Your task to perform on an android device: Open notification settings Image 0: 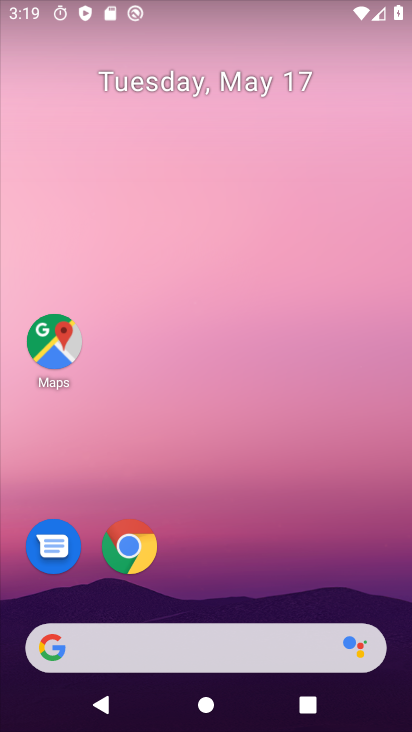
Step 0: drag from (226, 626) to (269, 213)
Your task to perform on an android device: Open notification settings Image 1: 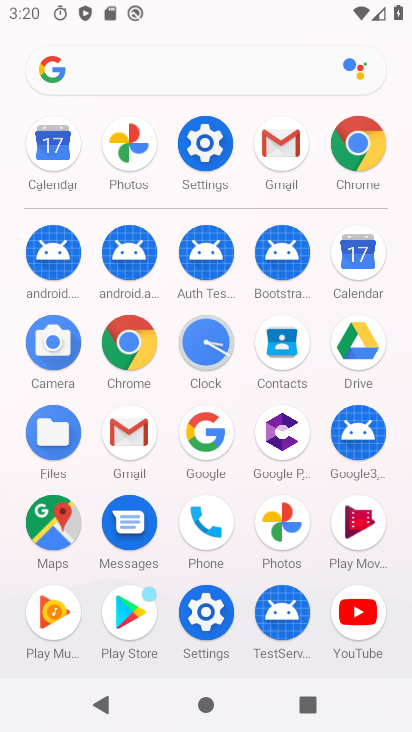
Step 1: click (199, 149)
Your task to perform on an android device: Open notification settings Image 2: 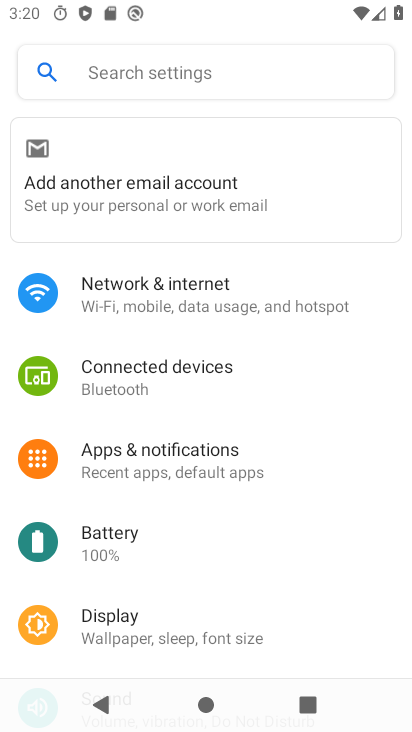
Step 2: click (218, 464)
Your task to perform on an android device: Open notification settings Image 3: 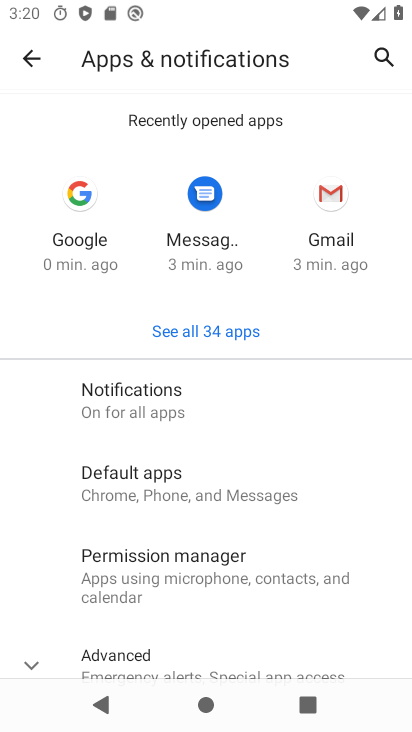
Step 3: click (224, 411)
Your task to perform on an android device: Open notification settings Image 4: 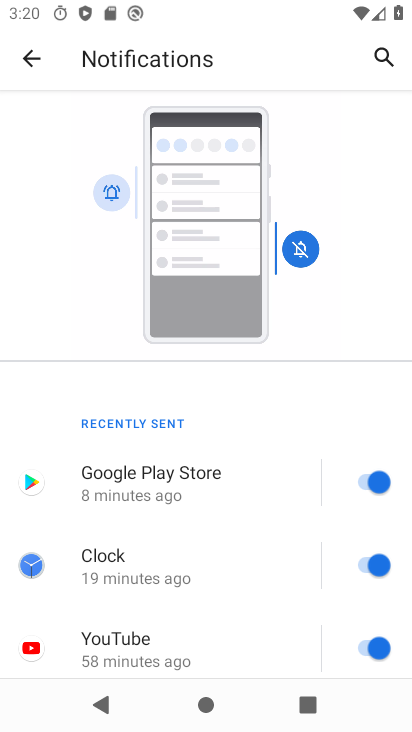
Step 4: drag from (197, 593) to (232, 227)
Your task to perform on an android device: Open notification settings Image 5: 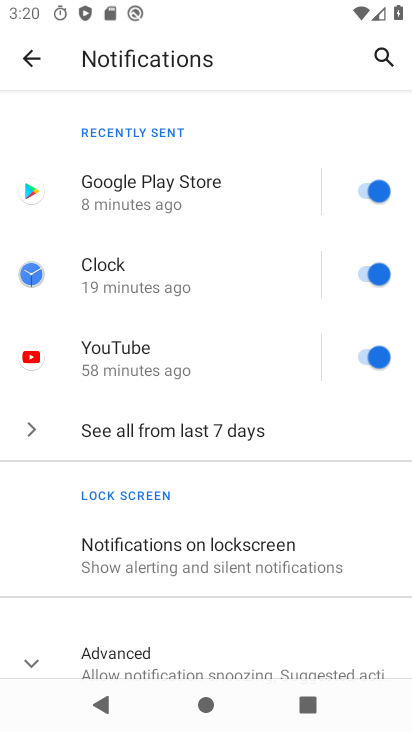
Step 5: click (229, 562)
Your task to perform on an android device: Open notification settings Image 6: 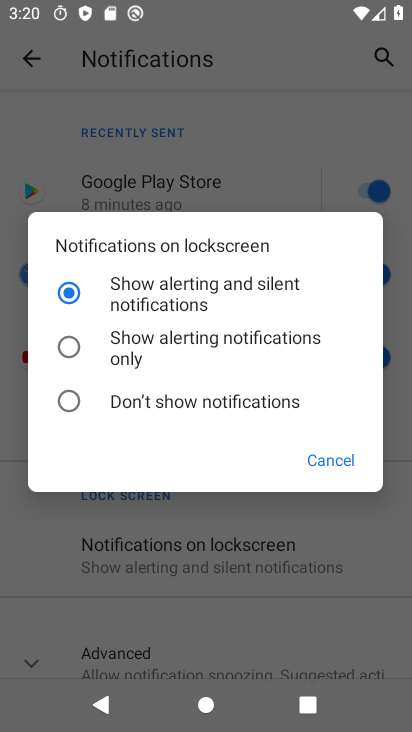
Step 6: task complete